Your task to perform on an android device: see sites visited before in the chrome app Image 0: 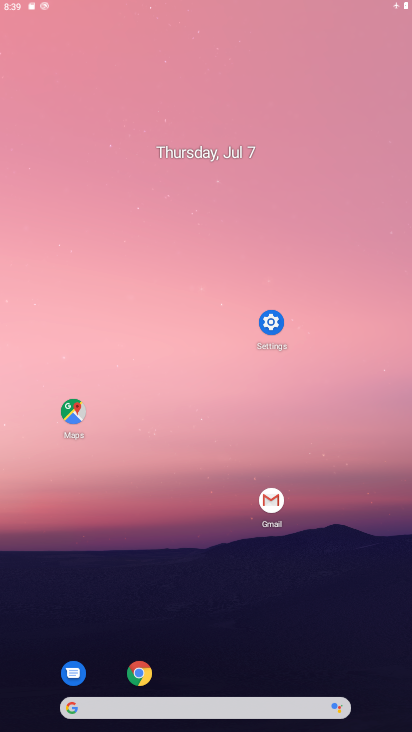
Step 0: press home button
Your task to perform on an android device: see sites visited before in the chrome app Image 1: 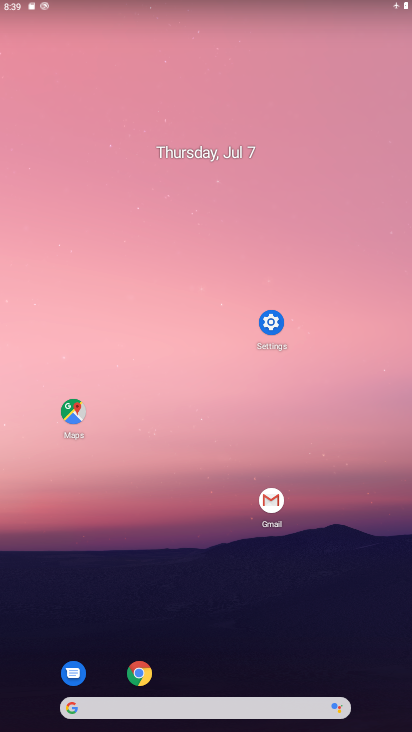
Step 1: click (267, 324)
Your task to perform on an android device: see sites visited before in the chrome app Image 2: 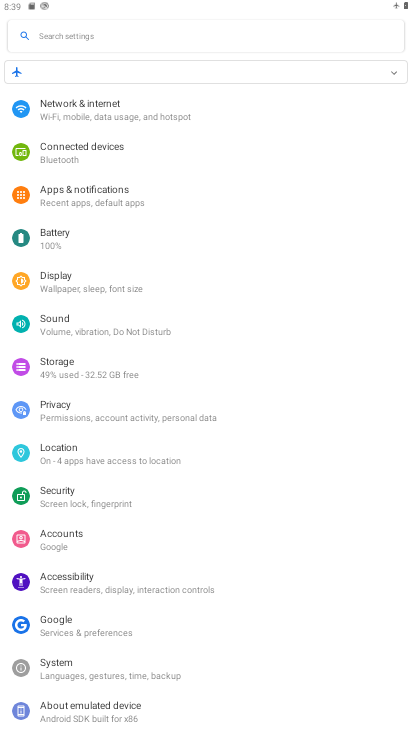
Step 2: click (75, 446)
Your task to perform on an android device: see sites visited before in the chrome app Image 3: 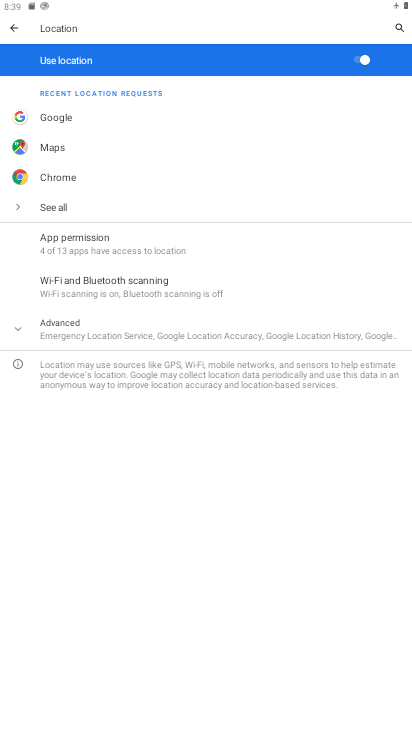
Step 3: press home button
Your task to perform on an android device: see sites visited before in the chrome app Image 4: 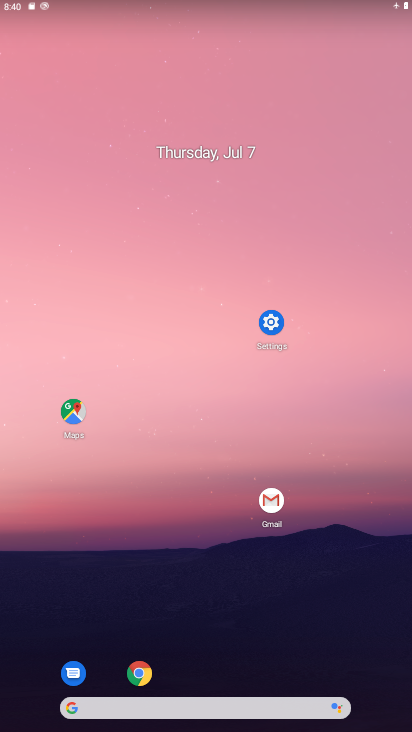
Step 4: click (143, 669)
Your task to perform on an android device: see sites visited before in the chrome app Image 5: 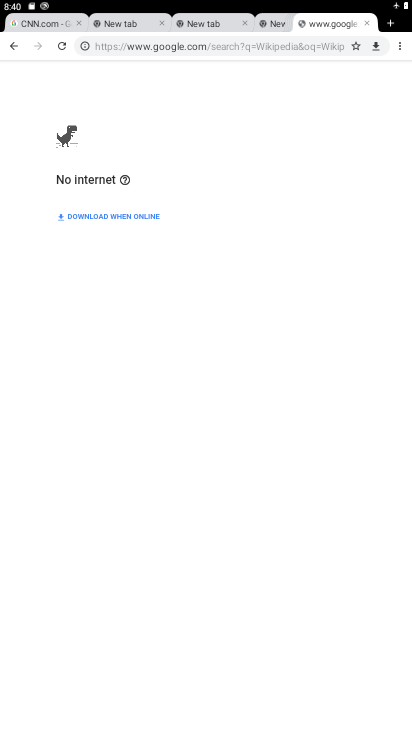
Step 5: click (401, 41)
Your task to perform on an android device: see sites visited before in the chrome app Image 6: 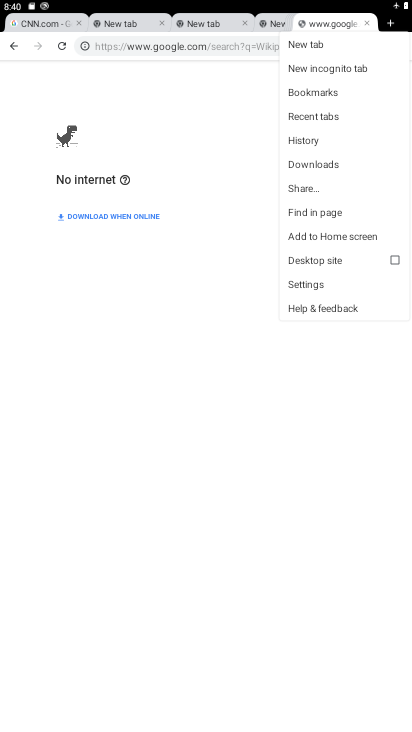
Step 6: click (304, 118)
Your task to perform on an android device: see sites visited before in the chrome app Image 7: 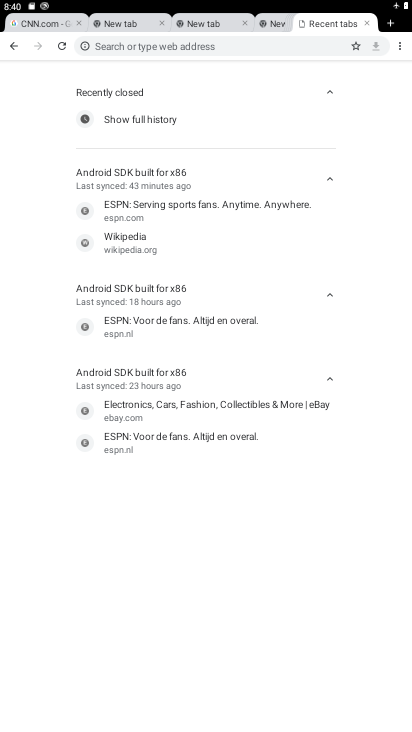
Step 7: task complete